Your task to perform on an android device: change notifications settings Image 0: 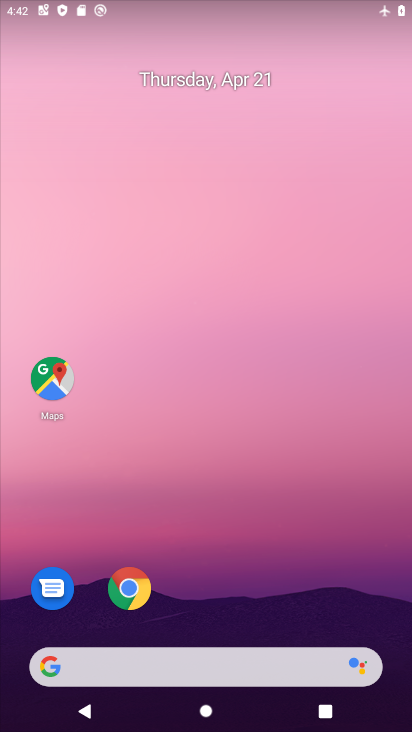
Step 0: drag from (211, 569) to (277, 90)
Your task to perform on an android device: change notifications settings Image 1: 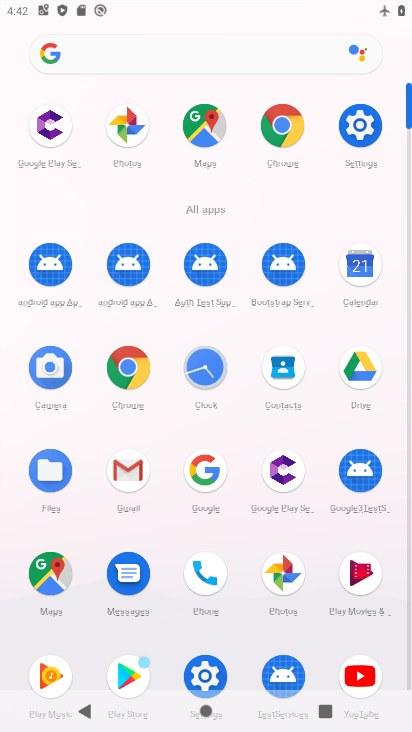
Step 1: click (368, 129)
Your task to perform on an android device: change notifications settings Image 2: 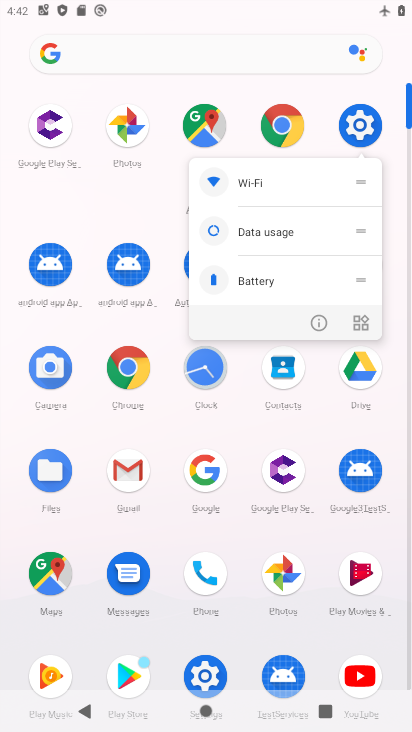
Step 2: click (353, 125)
Your task to perform on an android device: change notifications settings Image 3: 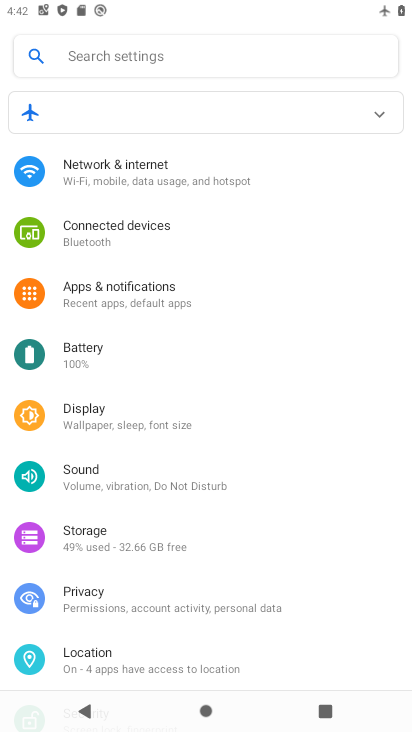
Step 3: click (128, 305)
Your task to perform on an android device: change notifications settings Image 4: 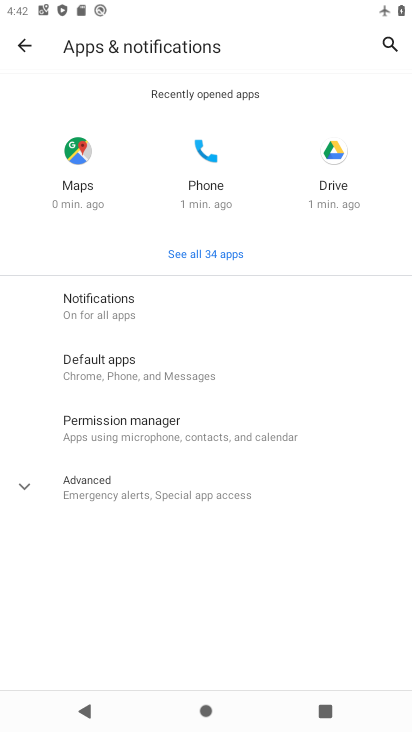
Step 4: click (124, 303)
Your task to perform on an android device: change notifications settings Image 5: 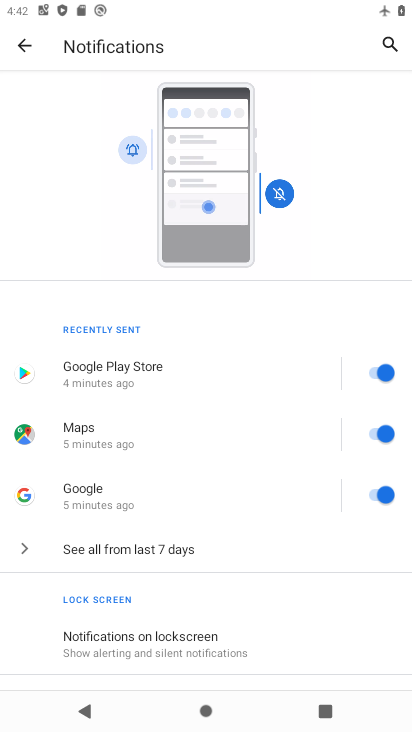
Step 5: drag from (224, 668) to (269, 178)
Your task to perform on an android device: change notifications settings Image 6: 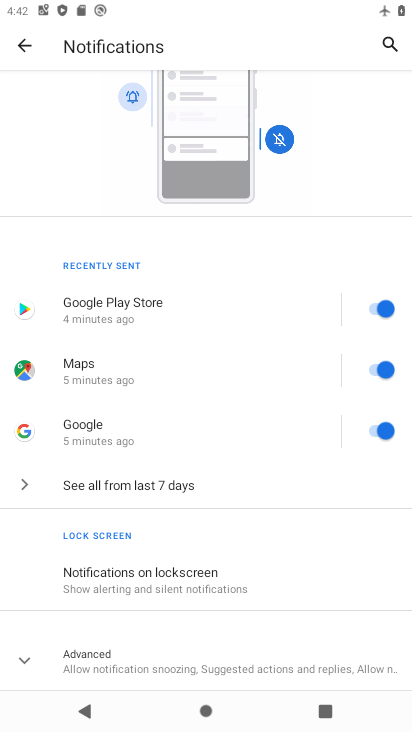
Step 6: click (193, 657)
Your task to perform on an android device: change notifications settings Image 7: 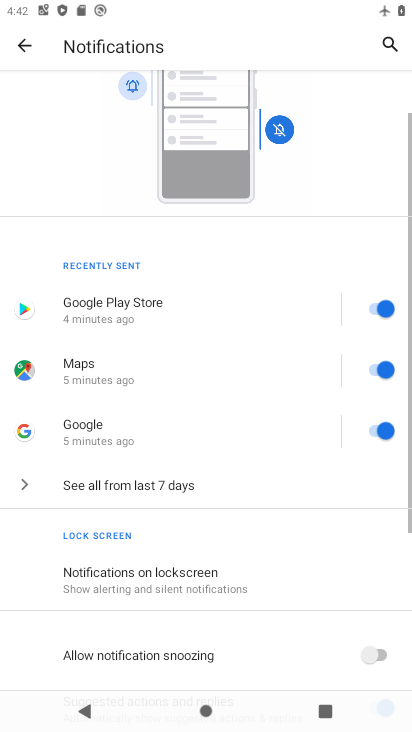
Step 7: drag from (182, 601) to (221, 112)
Your task to perform on an android device: change notifications settings Image 8: 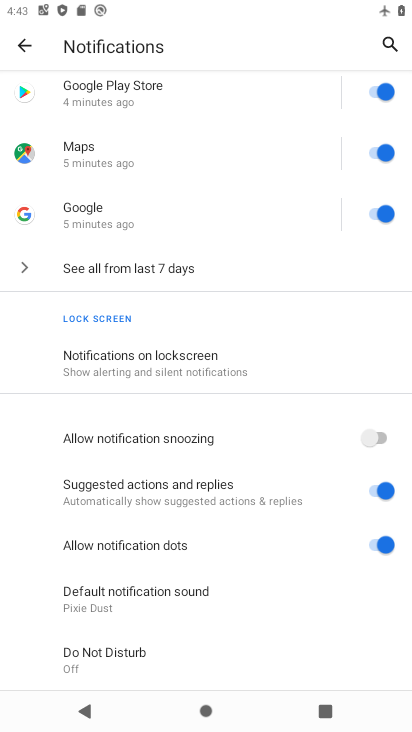
Step 8: click (385, 431)
Your task to perform on an android device: change notifications settings Image 9: 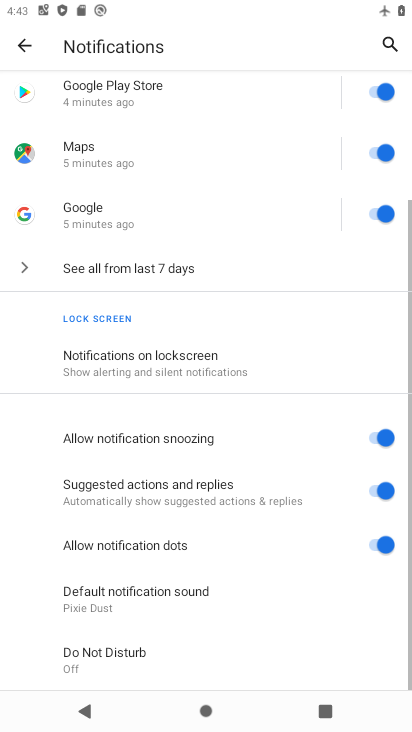
Step 9: task complete